Your task to perform on an android device: allow cookies in the chrome app Image 0: 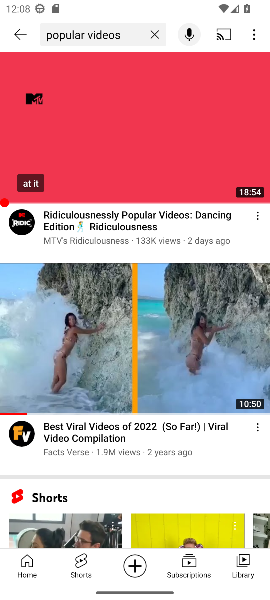
Step 0: press home button
Your task to perform on an android device: allow cookies in the chrome app Image 1: 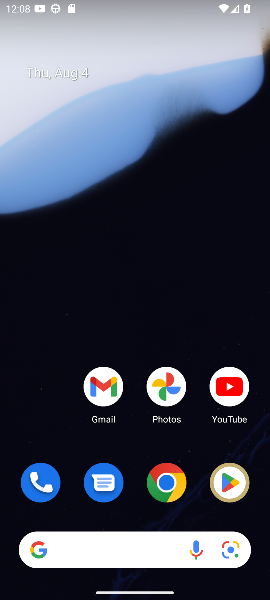
Step 1: click (163, 484)
Your task to perform on an android device: allow cookies in the chrome app Image 2: 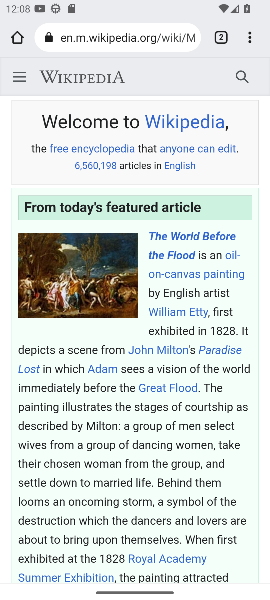
Step 2: click (250, 38)
Your task to perform on an android device: allow cookies in the chrome app Image 3: 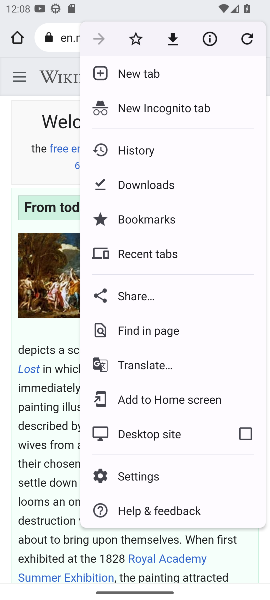
Step 3: click (154, 471)
Your task to perform on an android device: allow cookies in the chrome app Image 4: 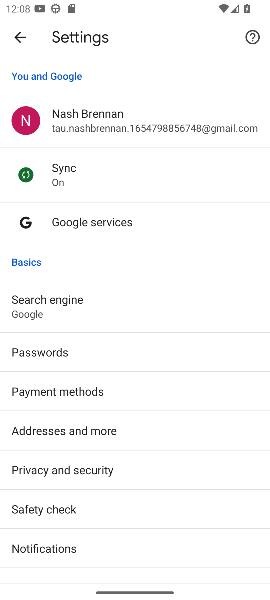
Step 4: drag from (86, 520) to (101, 315)
Your task to perform on an android device: allow cookies in the chrome app Image 5: 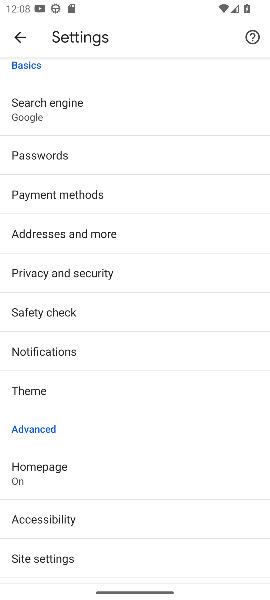
Step 5: drag from (103, 512) to (122, 370)
Your task to perform on an android device: allow cookies in the chrome app Image 6: 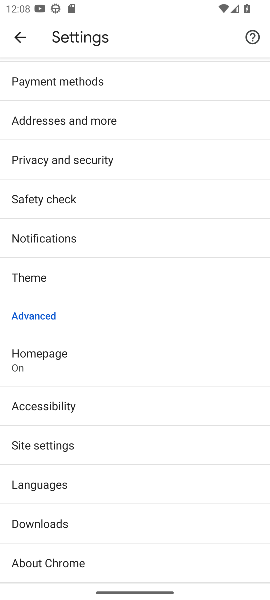
Step 6: click (86, 445)
Your task to perform on an android device: allow cookies in the chrome app Image 7: 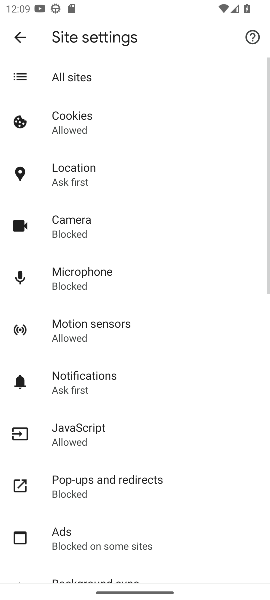
Step 7: click (91, 137)
Your task to perform on an android device: allow cookies in the chrome app Image 8: 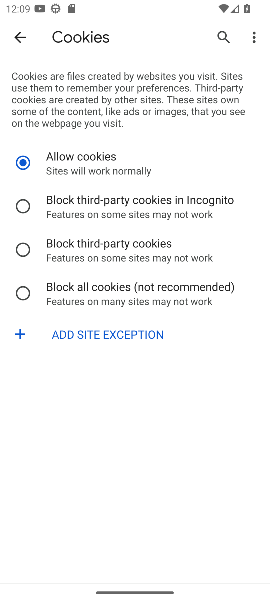
Step 8: task complete